Your task to perform on an android device: turn notification dots off Image 0: 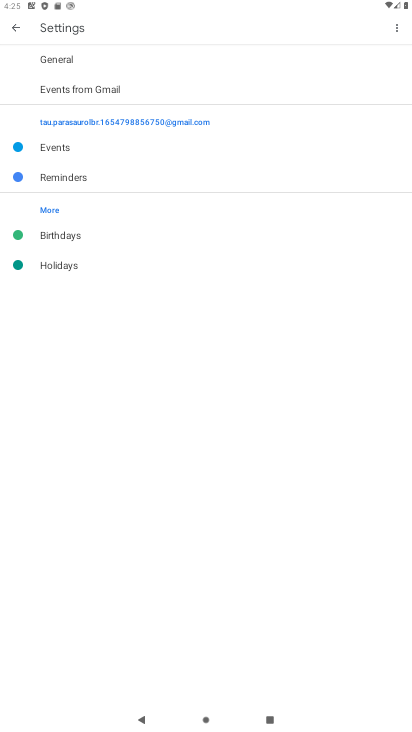
Step 0: press home button
Your task to perform on an android device: turn notification dots off Image 1: 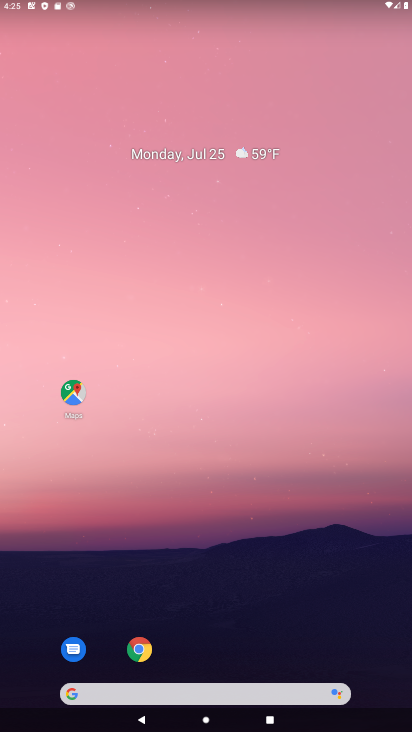
Step 1: drag from (353, 560) to (356, 119)
Your task to perform on an android device: turn notification dots off Image 2: 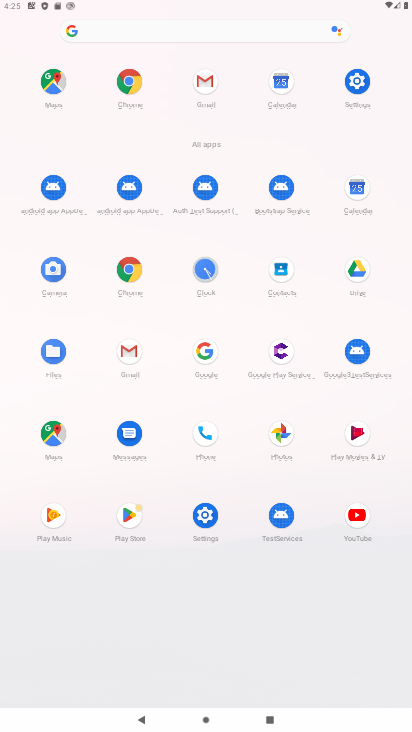
Step 2: click (374, 72)
Your task to perform on an android device: turn notification dots off Image 3: 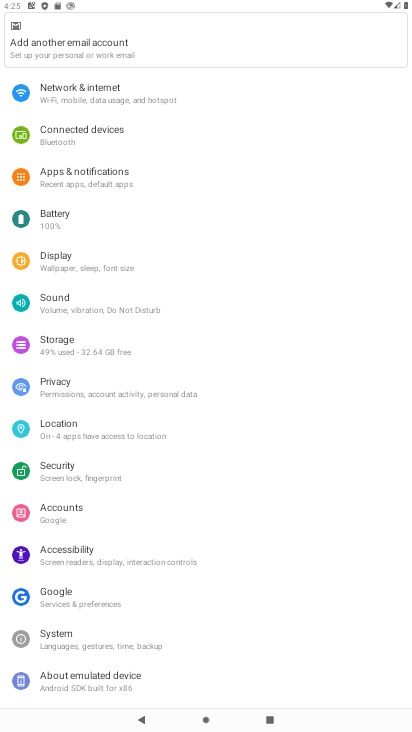
Step 3: click (100, 165)
Your task to perform on an android device: turn notification dots off Image 4: 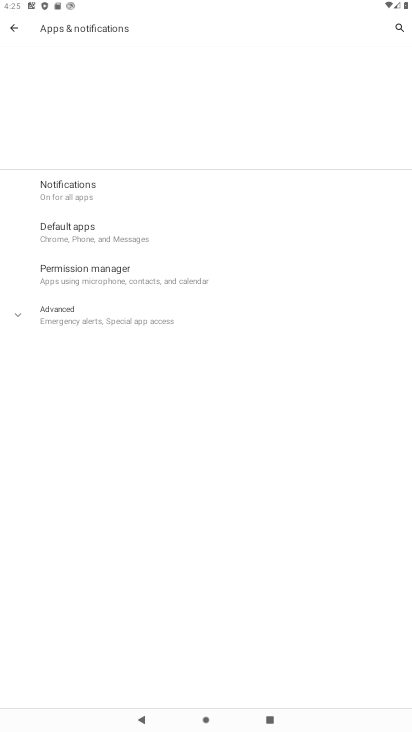
Step 4: click (78, 300)
Your task to perform on an android device: turn notification dots off Image 5: 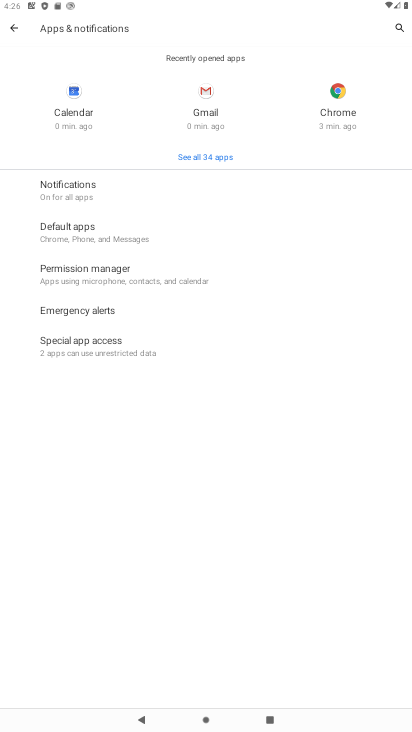
Step 5: click (59, 190)
Your task to perform on an android device: turn notification dots off Image 6: 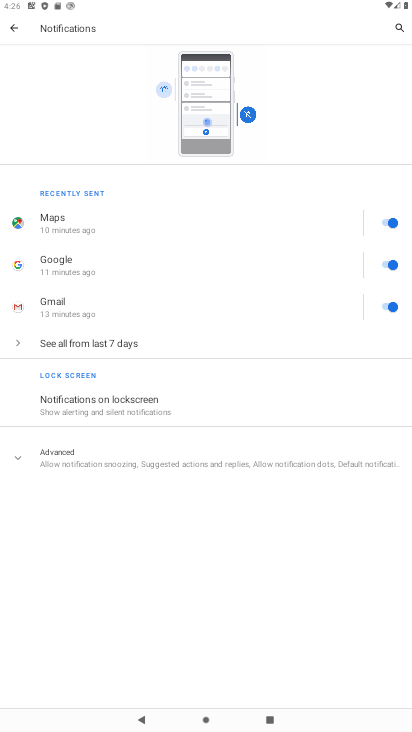
Step 6: click (90, 461)
Your task to perform on an android device: turn notification dots off Image 7: 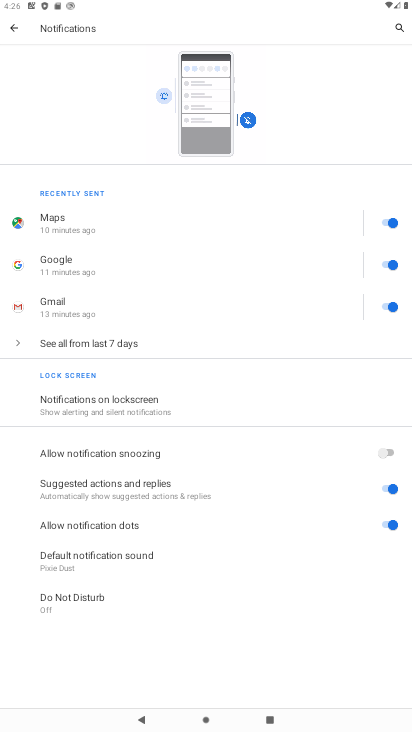
Step 7: click (390, 530)
Your task to perform on an android device: turn notification dots off Image 8: 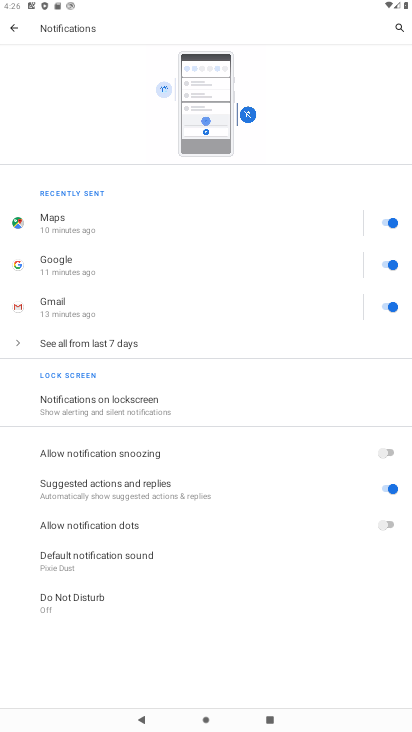
Step 8: task complete